Your task to perform on an android device: open device folders in google photos Image 0: 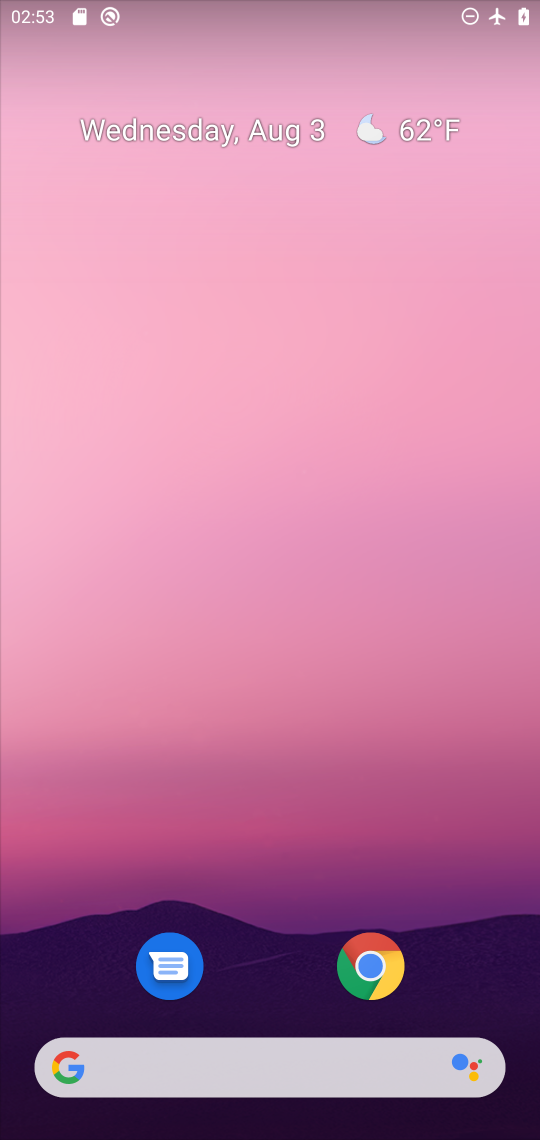
Step 0: drag from (270, 866) to (295, 338)
Your task to perform on an android device: open device folders in google photos Image 1: 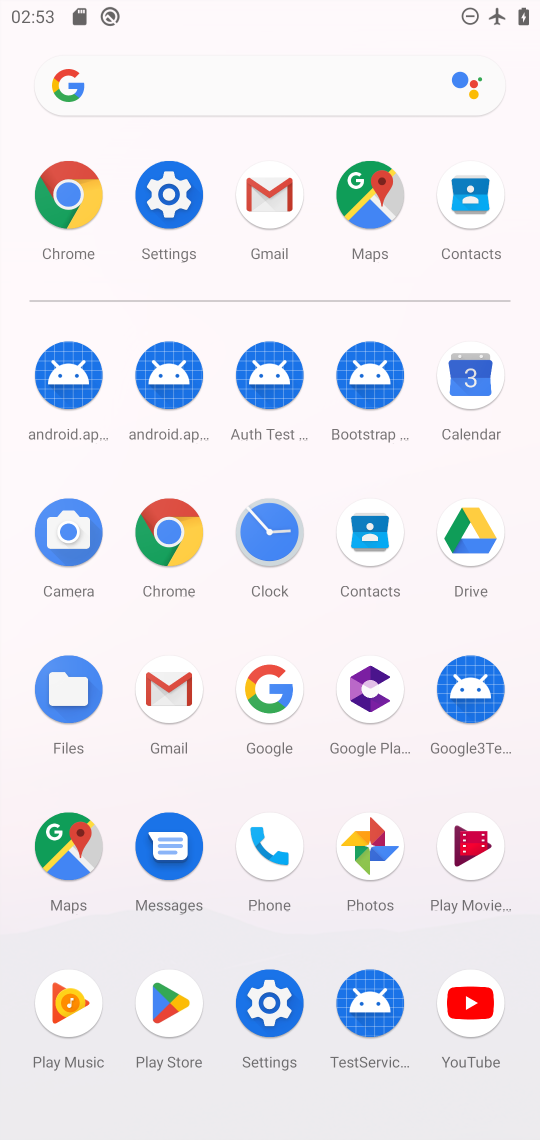
Step 1: click (365, 861)
Your task to perform on an android device: open device folders in google photos Image 2: 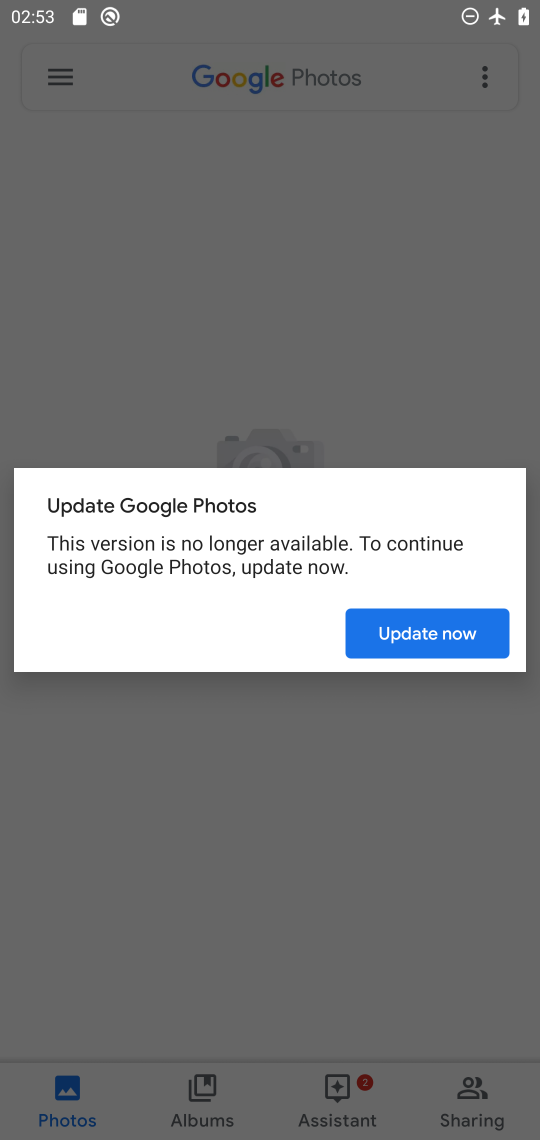
Step 2: click (420, 650)
Your task to perform on an android device: open device folders in google photos Image 3: 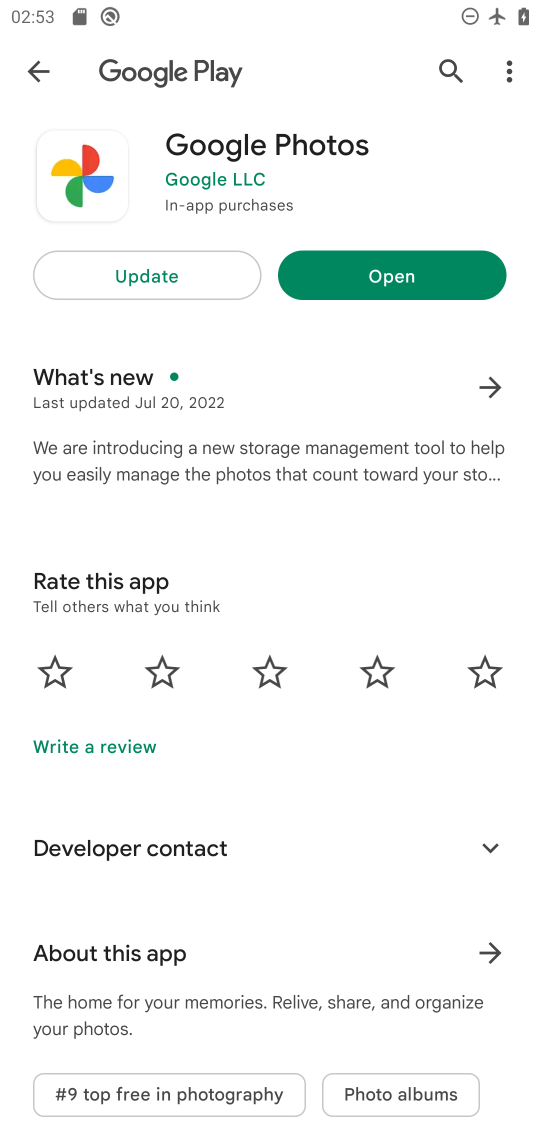
Step 3: click (365, 267)
Your task to perform on an android device: open device folders in google photos Image 4: 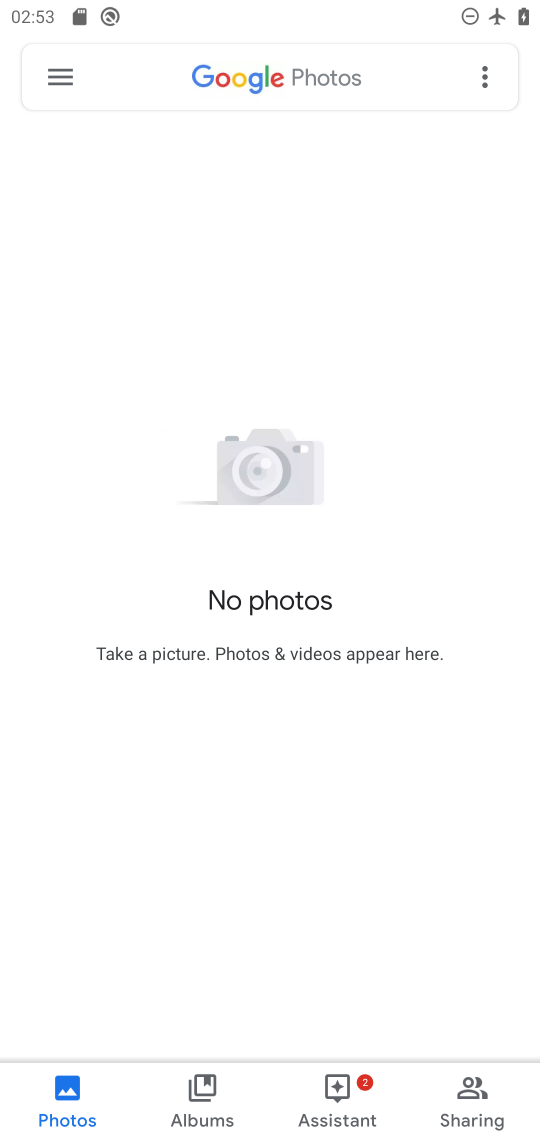
Step 4: click (66, 72)
Your task to perform on an android device: open device folders in google photos Image 5: 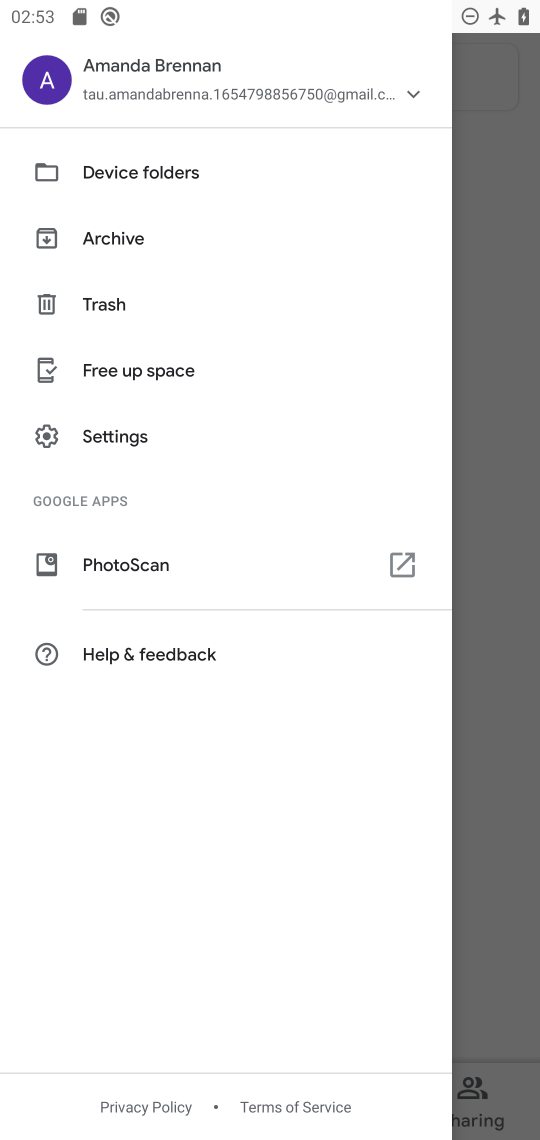
Step 5: click (161, 193)
Your task to perform on an android device: open device folders in google photos Image 6: 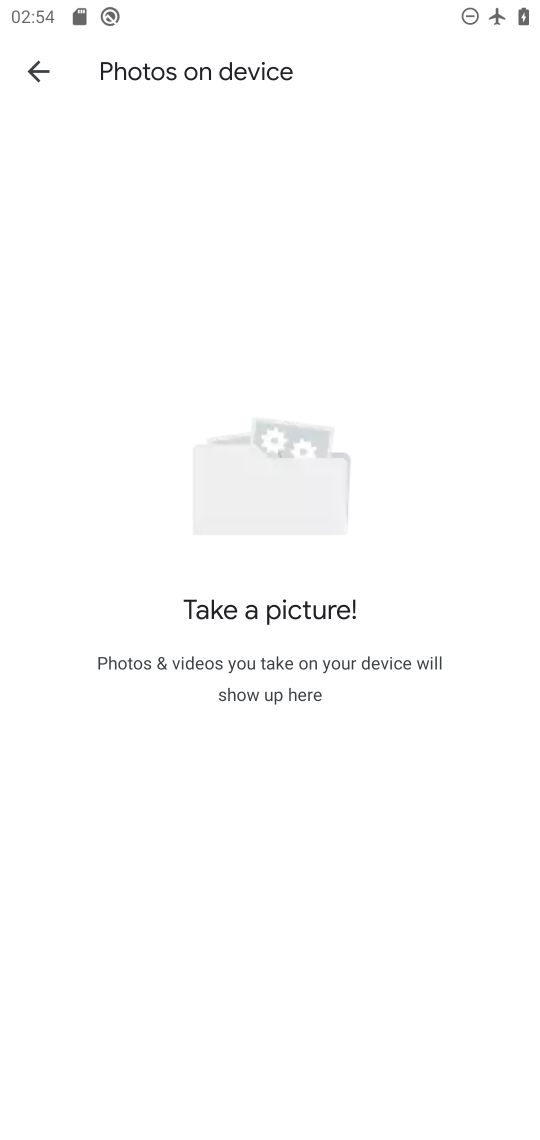
Step 6: task complete